Your task to perform on an android device: turn on notifications settings in the gmail app Image 0: 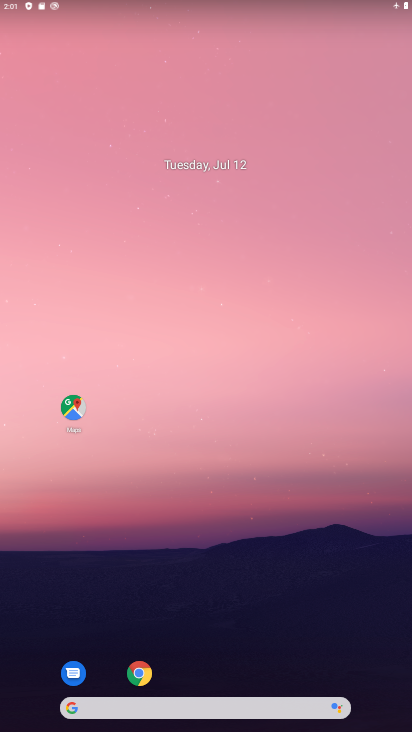
Step 0: drag from (206, 602) to (148, 303)
Your task to perform on an android device: turn on notifications settings in the gmail app Image 1: 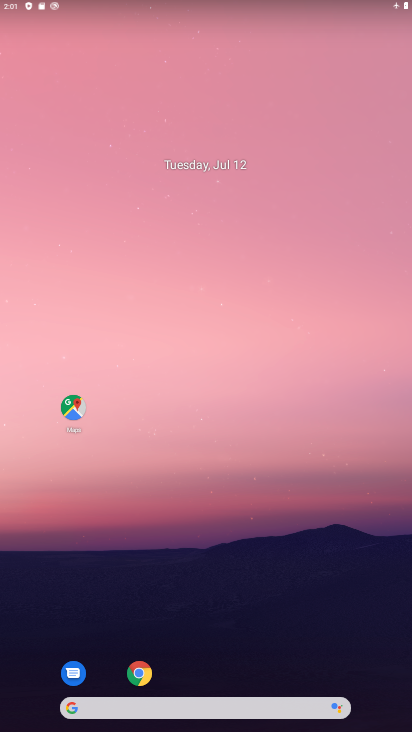
Step 1: drag from (247, 616) to (156, 213)
Your task to perform on an android device: turn on notifications settings in the gmail app Image 2: 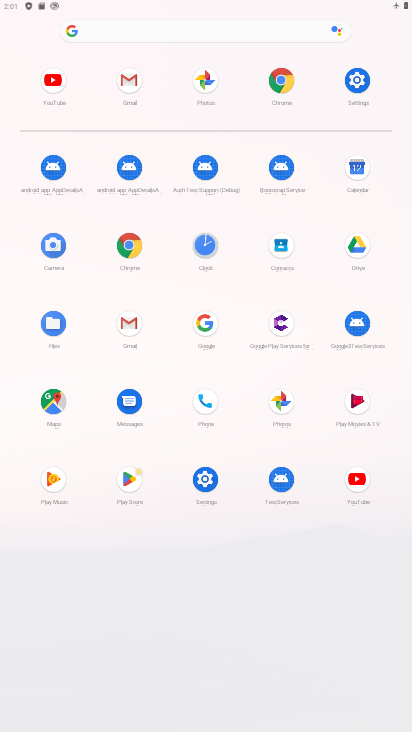
Step 2: click (131, 88)
Your task to perform on an android device: turn on notifications settings in the gmail app Image 3: 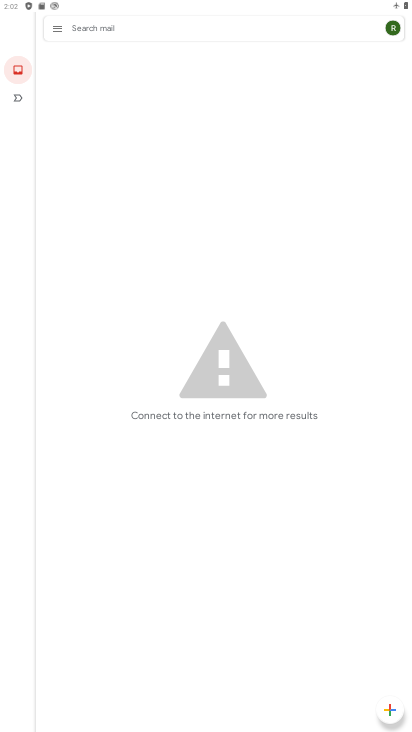
Step 3: click (55, 23)
Your task to perform on an android device: turn on notifications settings in the gmail app Image 4: 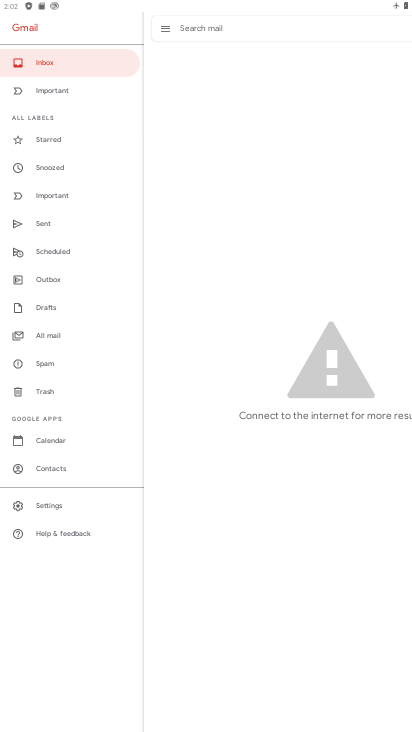
Step 4: click (63, 496)
Your task to perform on an android device: turn on notifications settings in the gmail app Image 5: 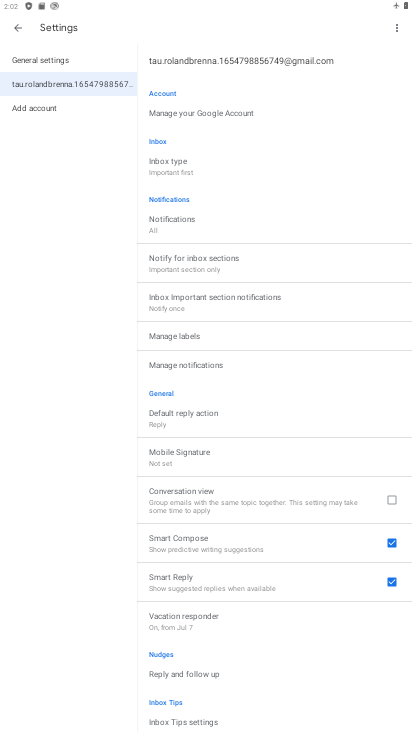
Step 5: click (190, 216)
Your task to perform on an android device: turn on notifications settings in the gmail app Image 6: 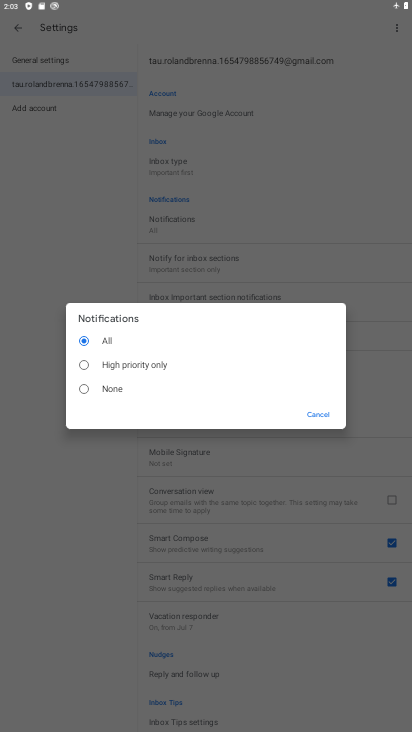
Step 6: task complete